Your task to perform on an android device: Open location settings Image 0: 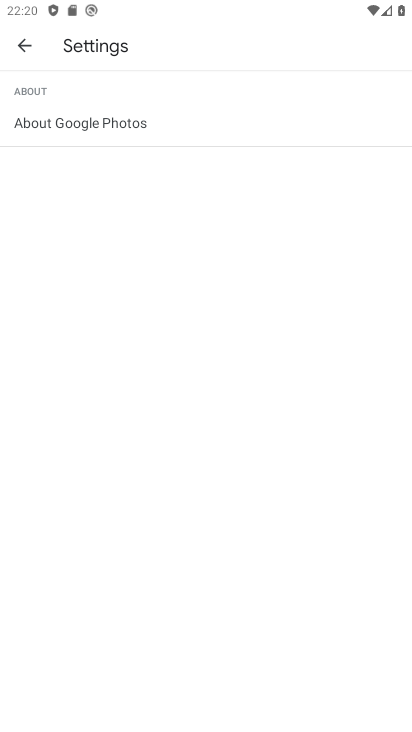
Step 0: press home button
Your task to perform on an android device: Open location settings Image 1: 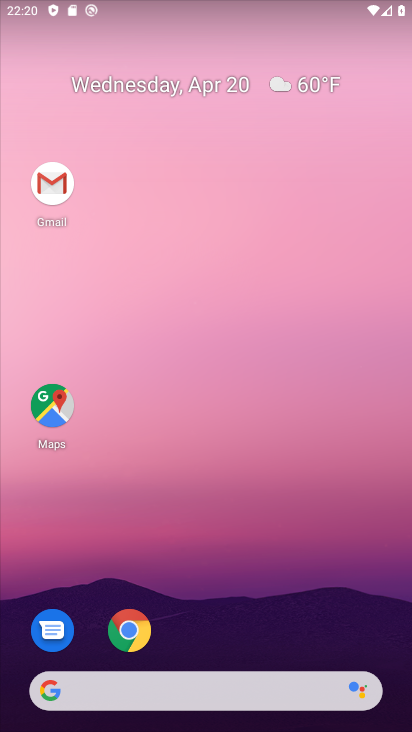
Step 1: drag from (227, 617) to (222, 71)
Your task to perform on an android device: Open location settings Image 2: 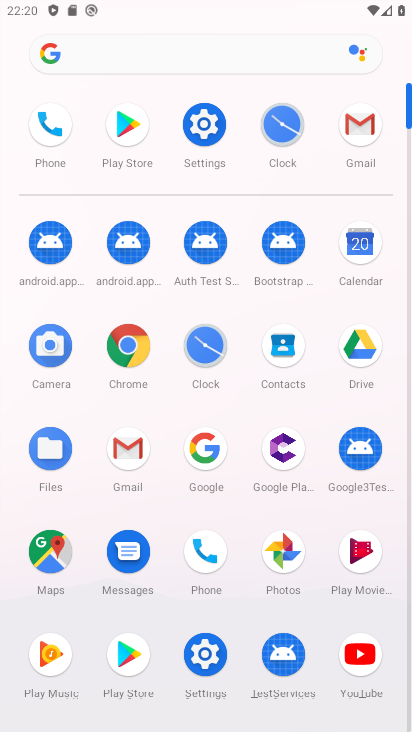
Step 2: drag from (194, 128) to (125, 200)
Your task to perform on an android device: Open location settings Image 3: 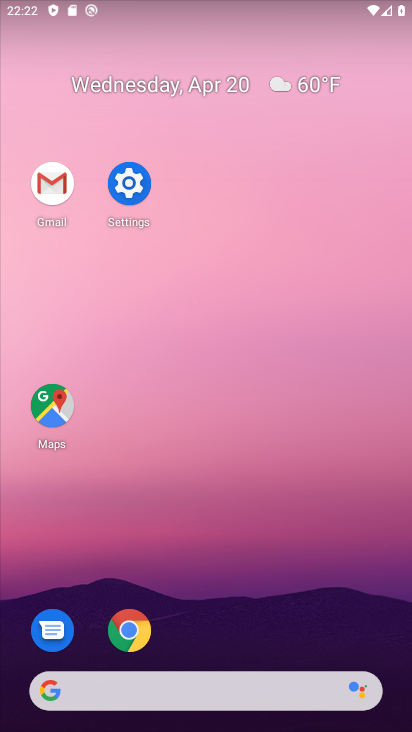
Step 3: click (125, 188)
Your task to perform on an android device: Open location settings Image 4: 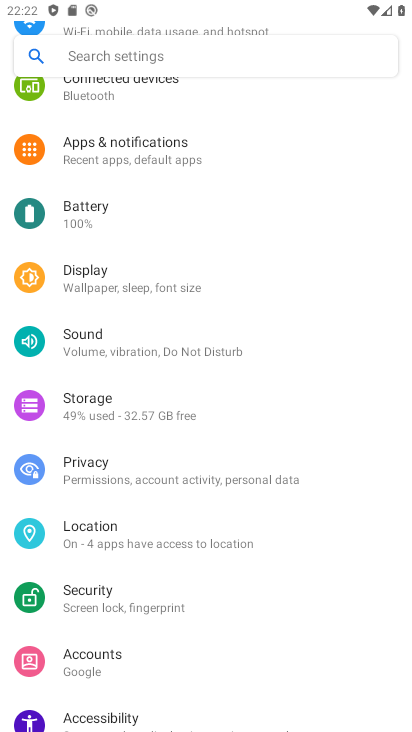
Step 4: click (234, 533)
Your task to perform on an android device: Open location settings Image 5: 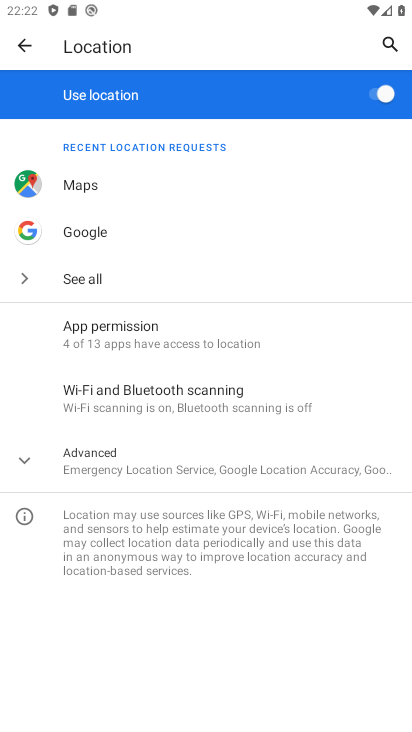
Step 5: task complete